Your task to perform on an android device: Open Google Image 0: 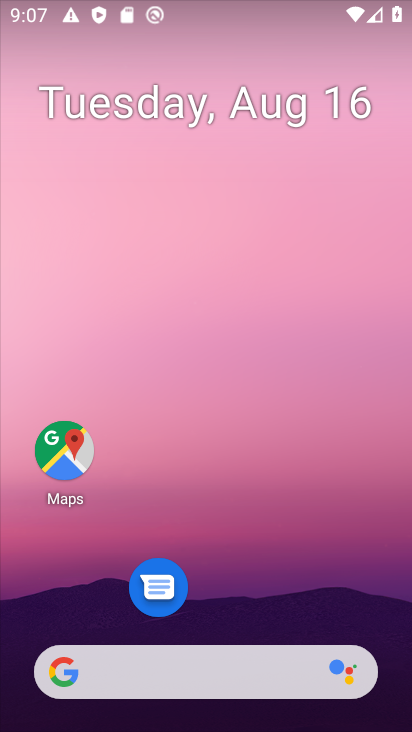
Step 0: drag from (228, 630) to (331, 20)
Your task to perform on an android device: Open Google Image 1: 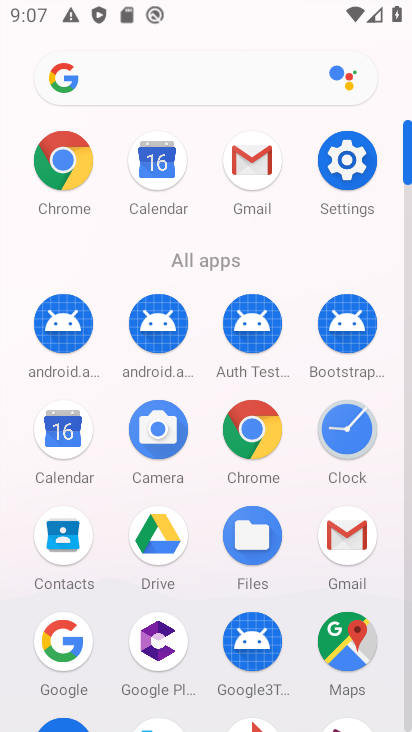
Step 1: click (70, 637)
Your task to perform on an android device: Open Google Image 2: 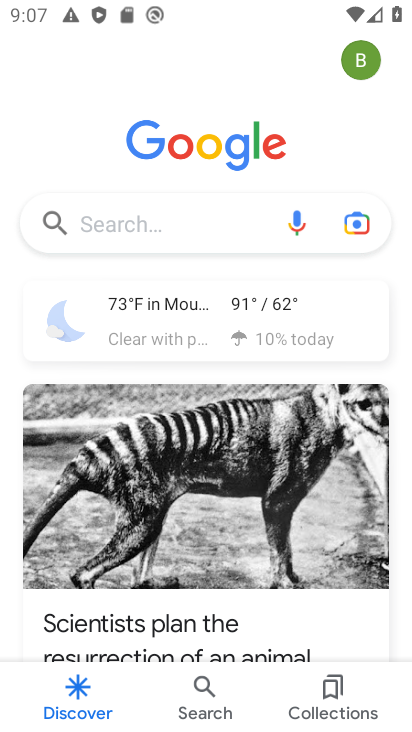
Step 2: click (146, 233)
Your task to perform on an android device: Open Google Image 3: 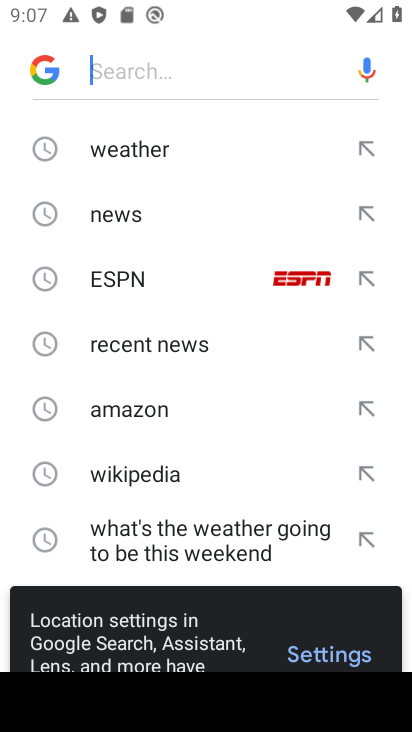
Step 3: task complete